Your task to perform on an android device: open app "HBO Max: Stream TV & Movies" (install if not already installed) and enter user name: "faring@outlook.com" and password: "appropriately" Image 0: 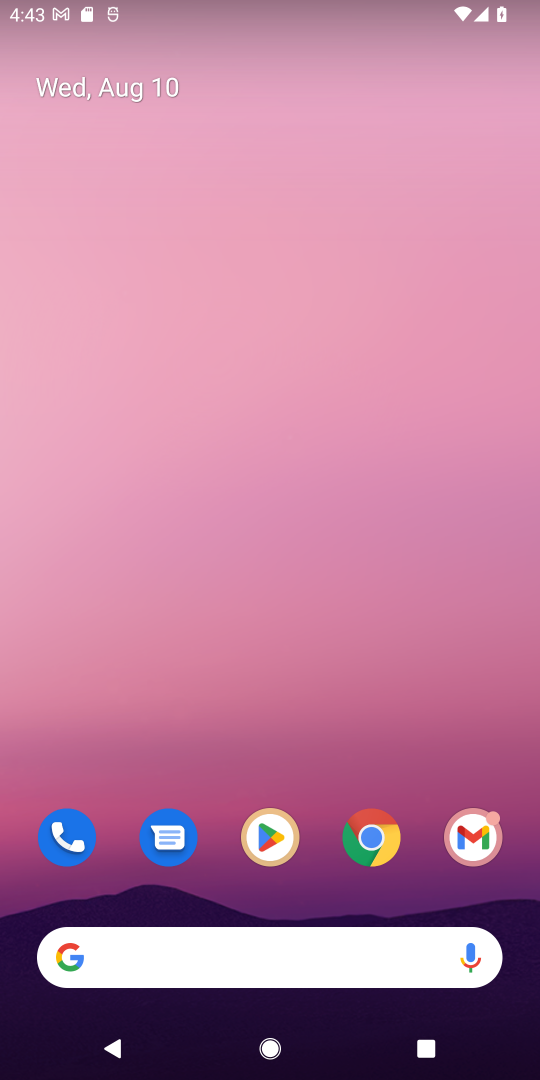
Step 0: click (280, 837)
Your task to perform on an android device: open app "HBO Max: Stream TV & Movies" (install if not already installed) and enter user name: "faring@outlook.com" and password: "appropriately" Image 1: 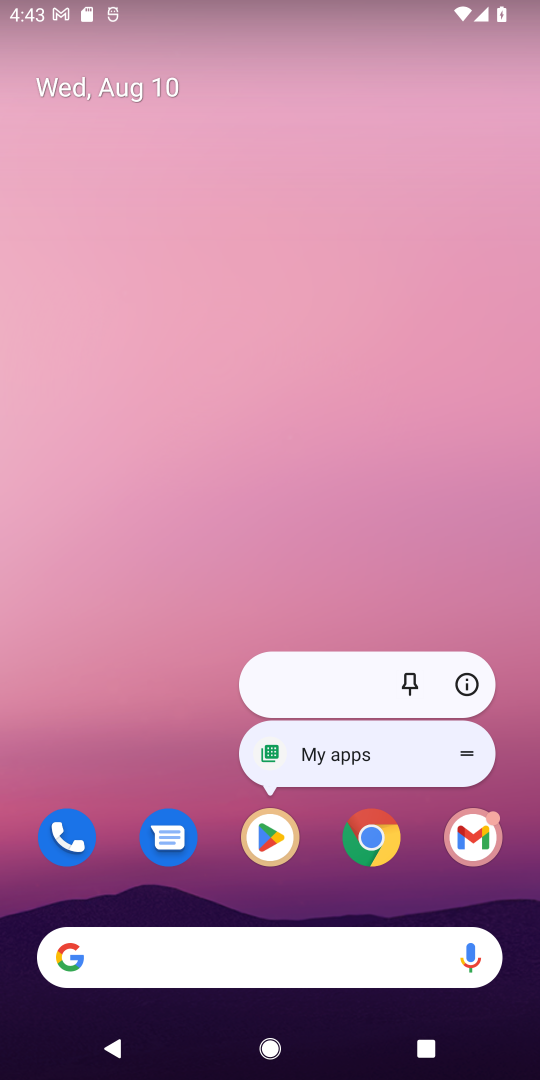
Step 1: click (263, 836)
Your task to perform on an android device: open app "HBO Max: Stream TV & Movies" (install if not already installed) and enter user name: "faring@outlook.com" and password: "appropriately" Image 2: 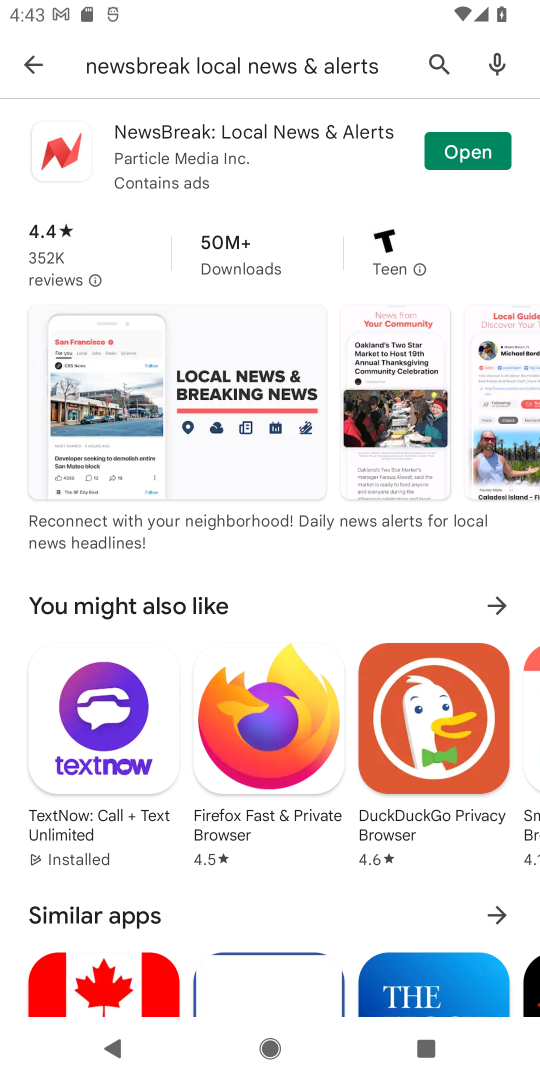
Step 2: click (434, 54)
Your task to perform on an android device: open app "HBO Max: Stream TV & Movies" (install if not already installed) and enter user name: "faring@outlook.com" and password: "appropriately" Image 3: 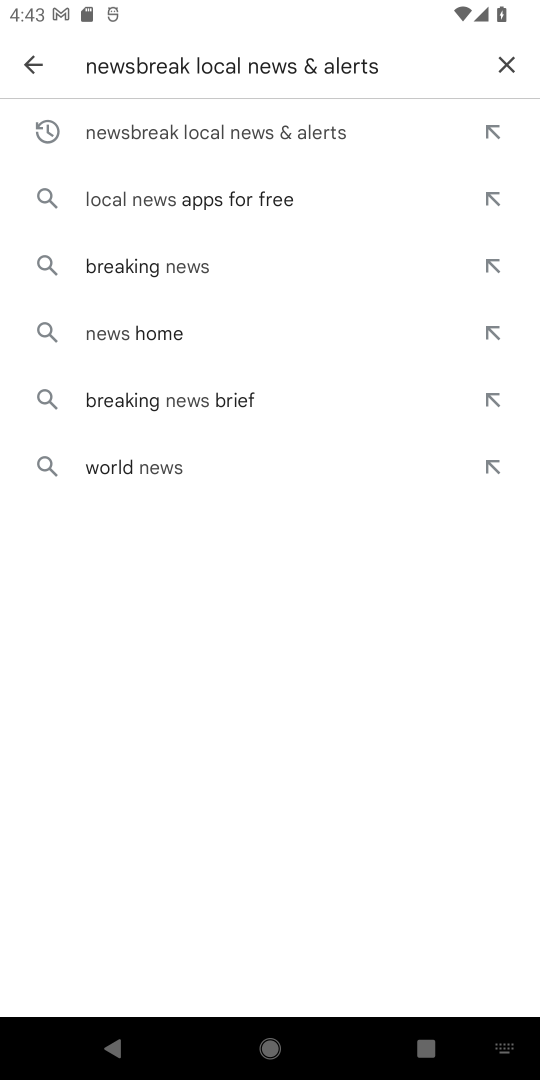
Step 3: click (506, 52)
Your task to perform on an android device: open app "HBO Max: Stream TV & Movies" (install if not already installed) and enter user name: "faring@outlook.com" and password: "appropriately" Image 4: 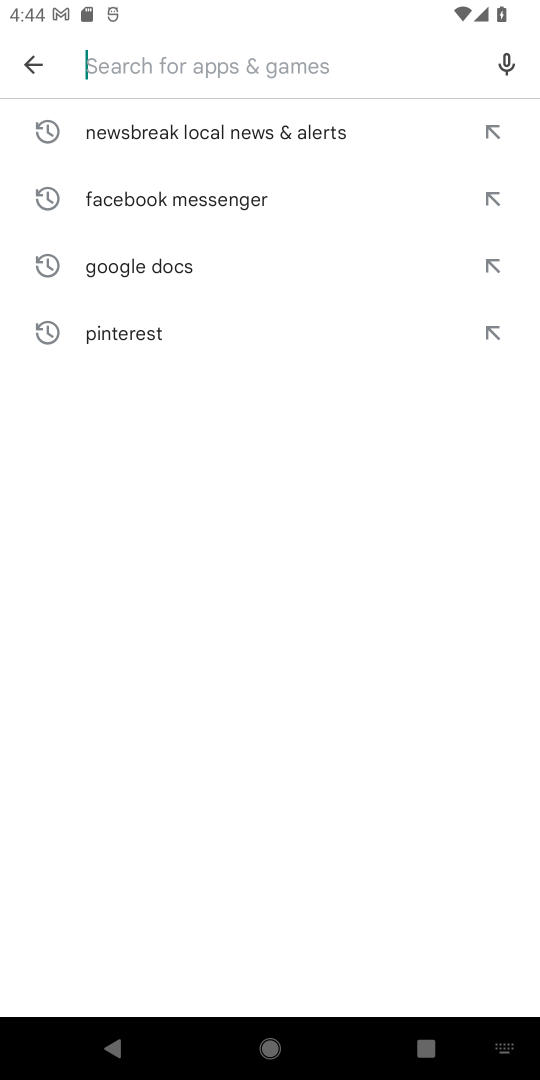
Step 4: type "HBO Max: Stream TV & Movies"
Your task to perform on an android device: open app "HBO Max: Stream TV & Movies" (install if not already installed) and enter user name: "faring@outlook.com" and password: "appropriately" Image 5: 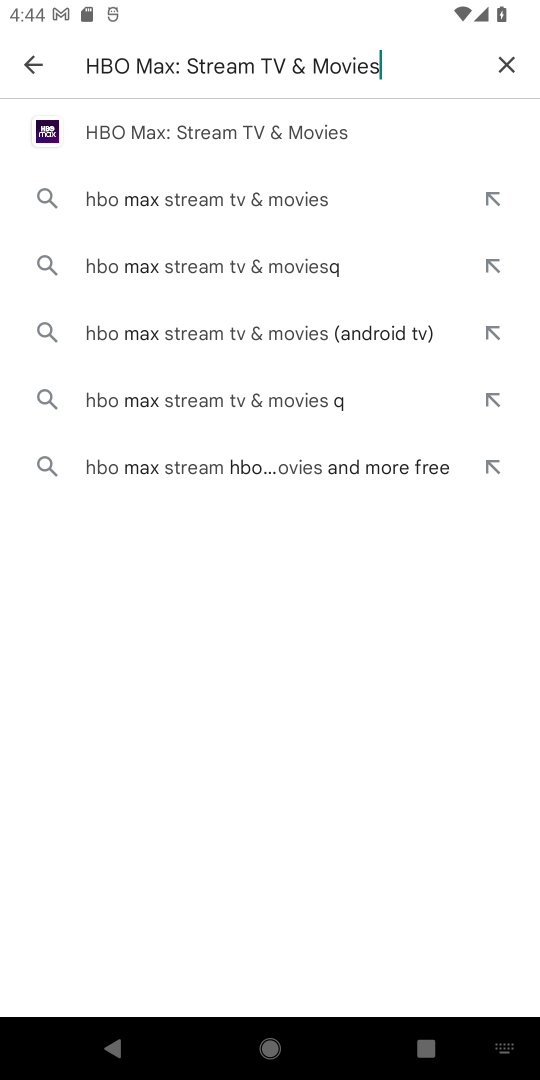
Step 5: click (138, 135)
Your task to perform on an android device: open app "HBO Max: Stream TV & Movies" (install if not already installed) and enter user name: "faring@outlook.com" and password: "appropriately" Image 6: 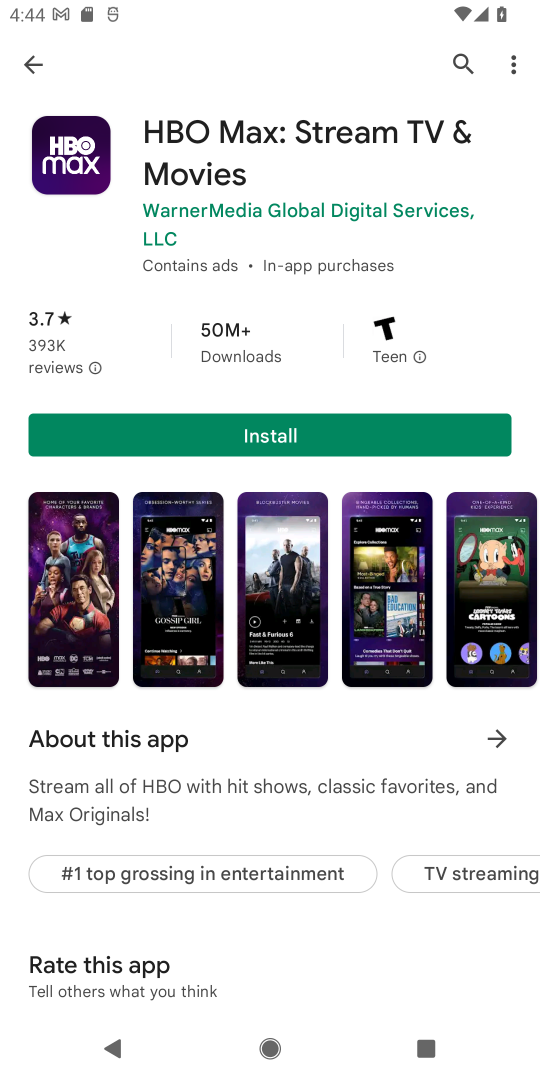
Step 6: click (286, 424)
Your task to perform on an android device: open app "HBO Max: Stream TV & Movies" (install if not already installed) and enter user name: "faring@outlook.com" and password: "appropriately" Image 7: 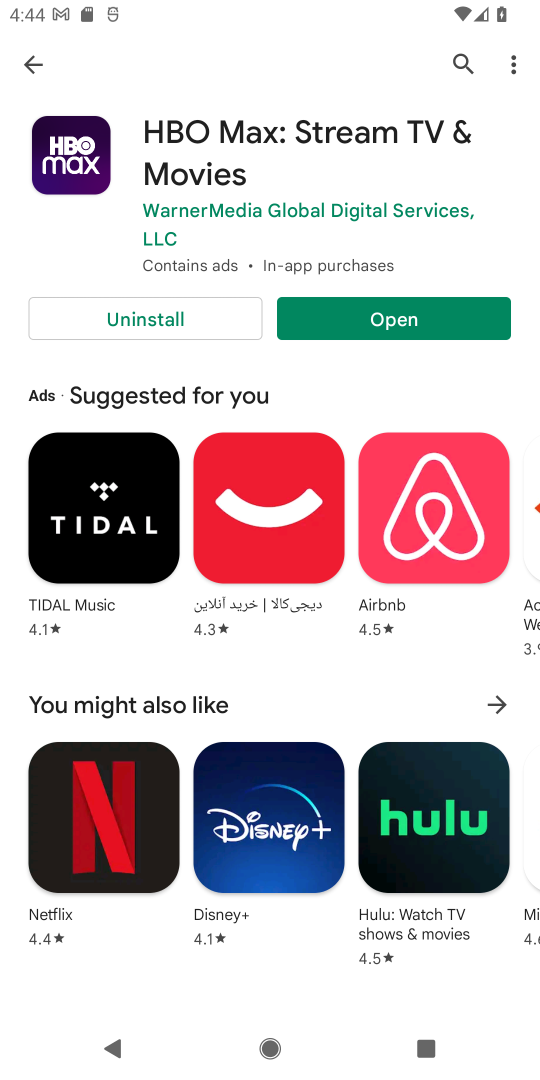
Step 7: click (420, 322)
Your task to perform on an android device: open app "HBO Max: Stream TV & Movies" (install if not already installed) and enter user name: "faring@outlook.com" and password: "appropriately" Image 8: 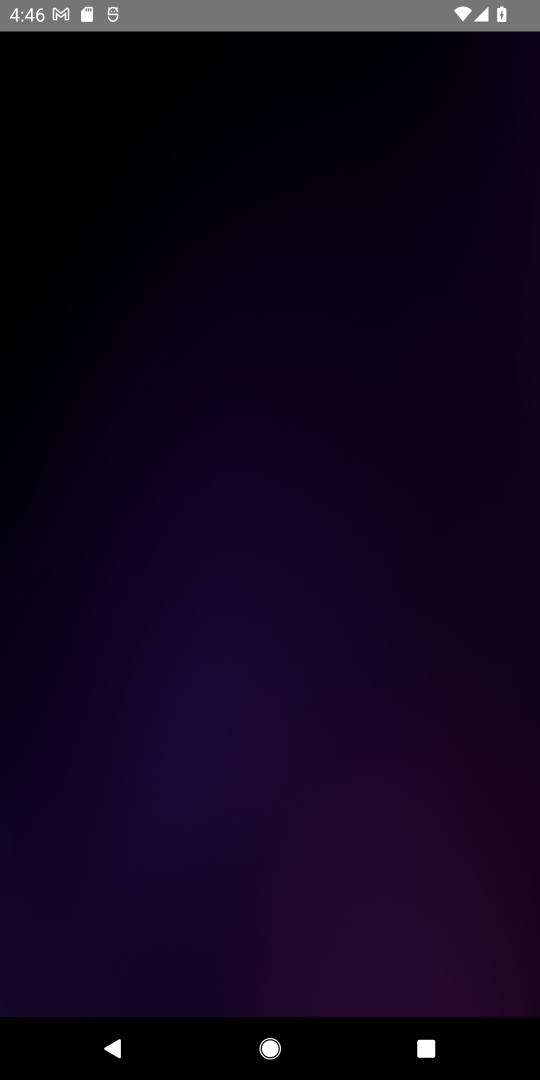
Step 8: task complete